Your task to perform on an android device: Go to privacy settings Image 0: 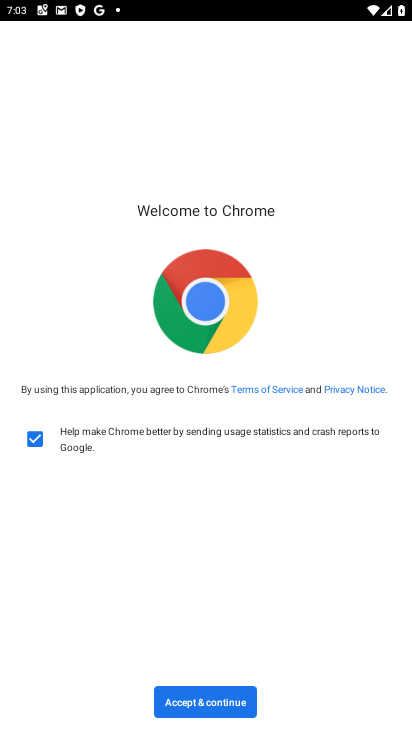
Step 0: press home button
Your task to perform on an android device: Go to privacy settings Image 1: 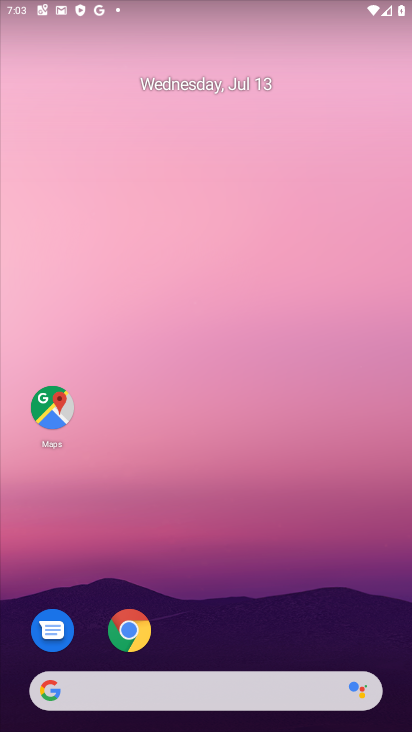
Step 1: drag from (350, 671) to (204, 69)
Your task to perform on an android device: Go to privacy settings Image 2: 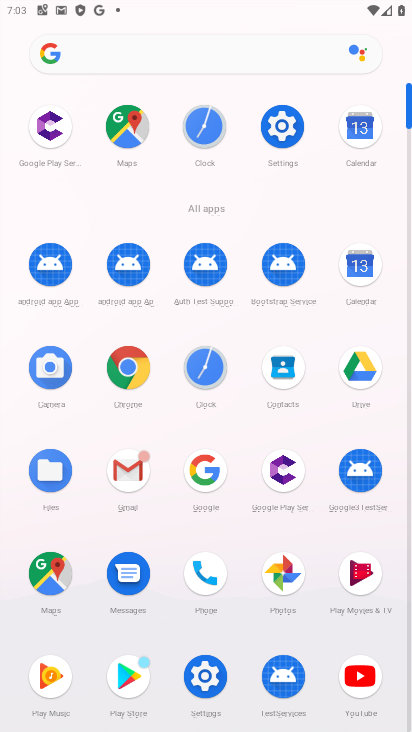
Step 2: click (278, 131)
Your task to perform on an android device: Go to privacy settings Image 3: 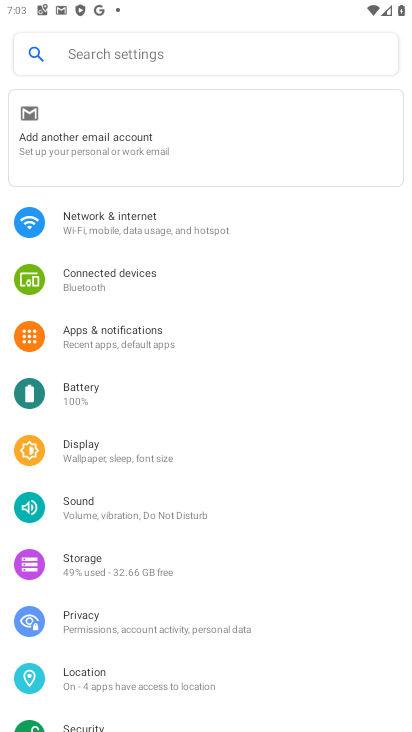
Step 3: click (136, 608)
Your task to perform on an android device: Go to privacy settings Image 4: 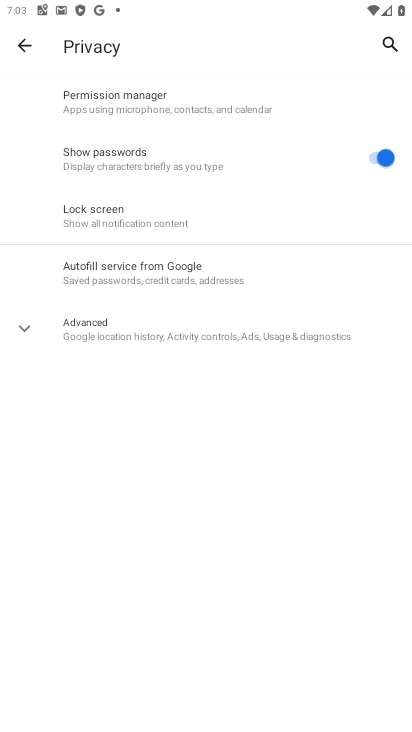
Step 4: task complete